Your task to perform on an android device: uninstall "Yahoo Mail" Image 0: 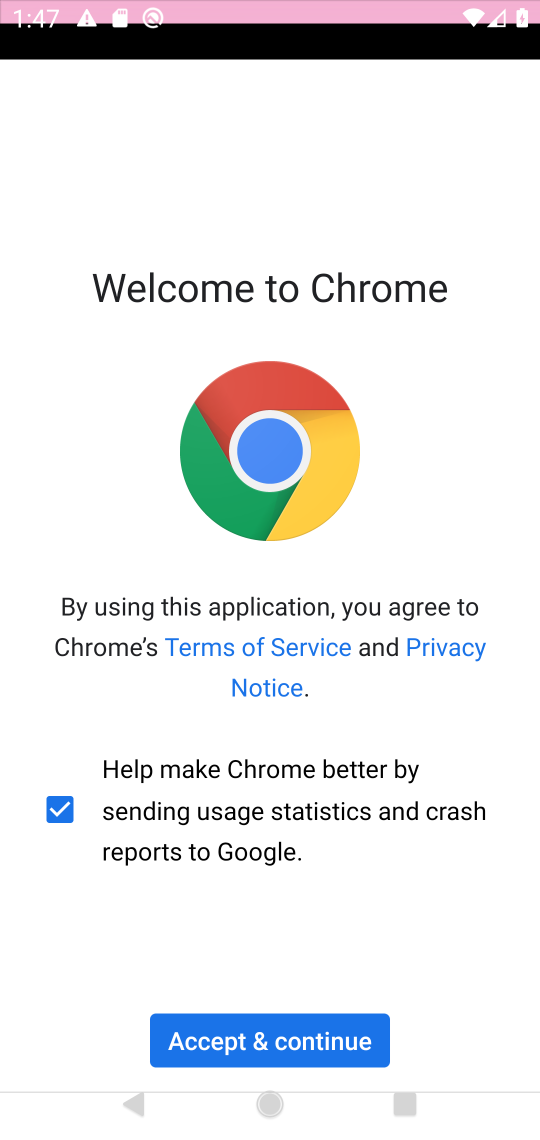
Step 0: press back button
Your task to perform on an android device: uninstall "Yahoo Mail" Image 1: 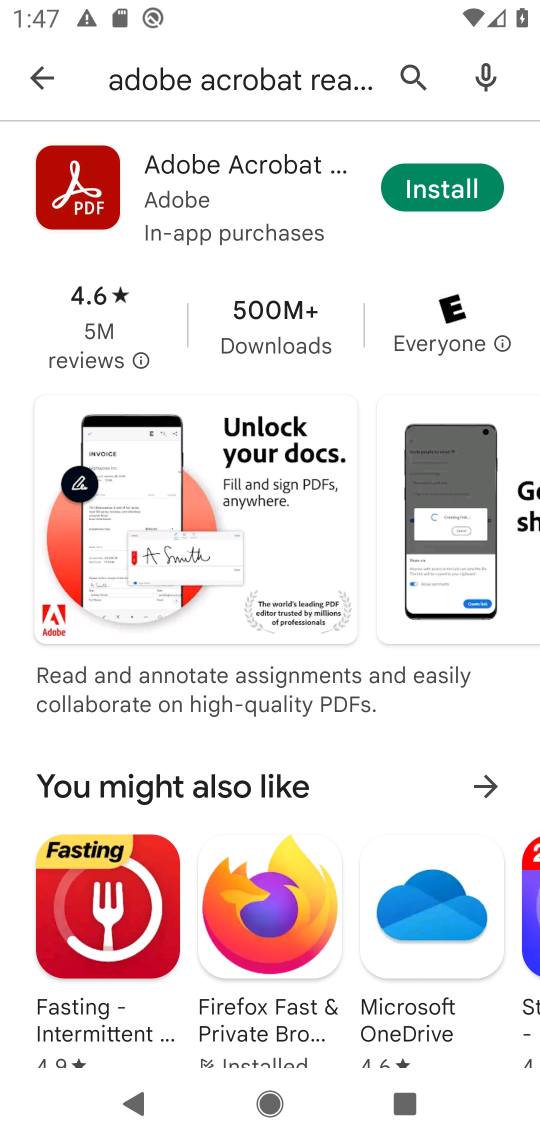
Step 1: press back button
Your task to perform on an android device: uninstall "Yahoo Mail" Image 2: 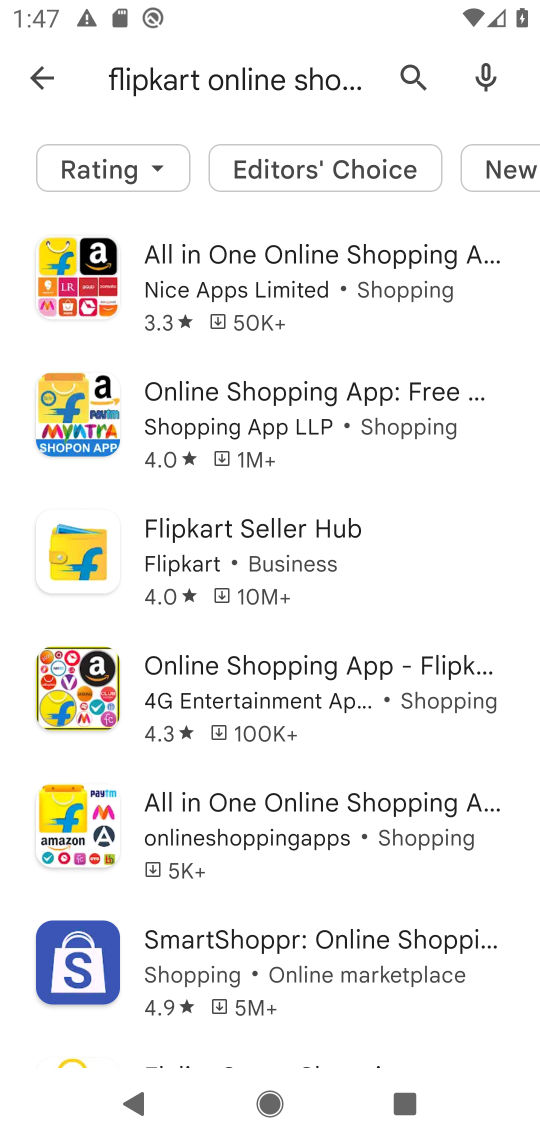
Step 2: click (381, 79)
Your task to perform on an android device: uninstall "Yahoo Mail" Image 3: 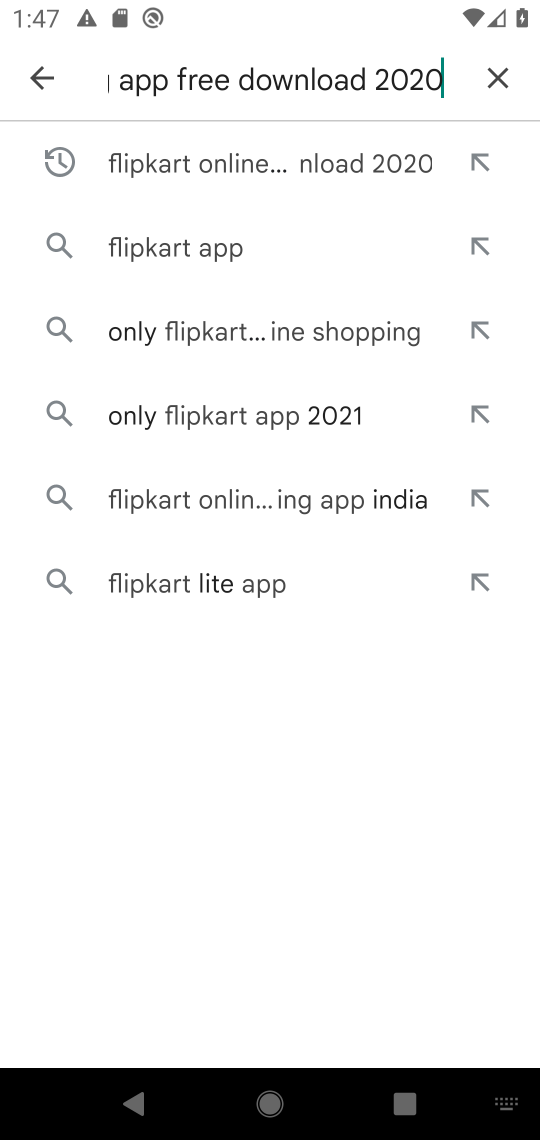
Step 3: click (495, 72)
Your task to perform on an android device: uninstall "Yahoo Mail" Image 4: 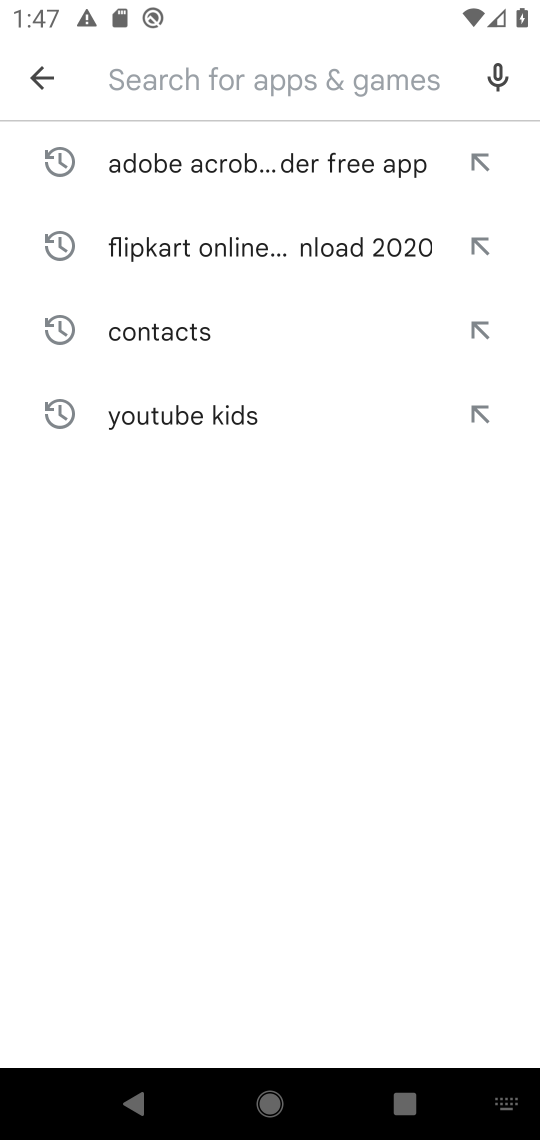
Step 4: click (272, 79)
Your task to perform on an android device: uninstall "Yahoo Mail" Image 5: 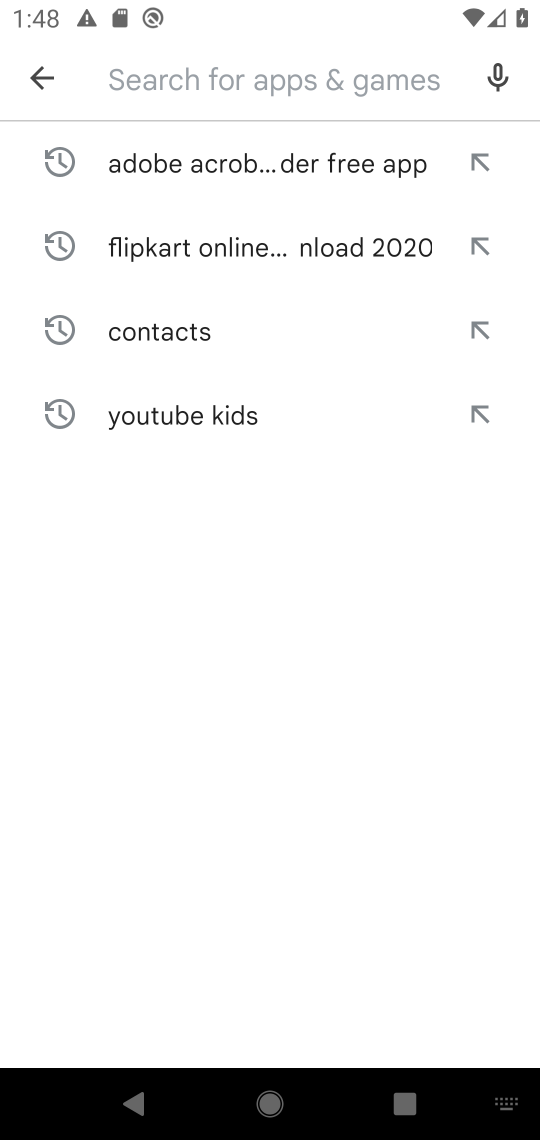
Step 5: type "yahoo mail"
Your task to perform on an android device: uninstall "Yahoo Mail" Image 6: 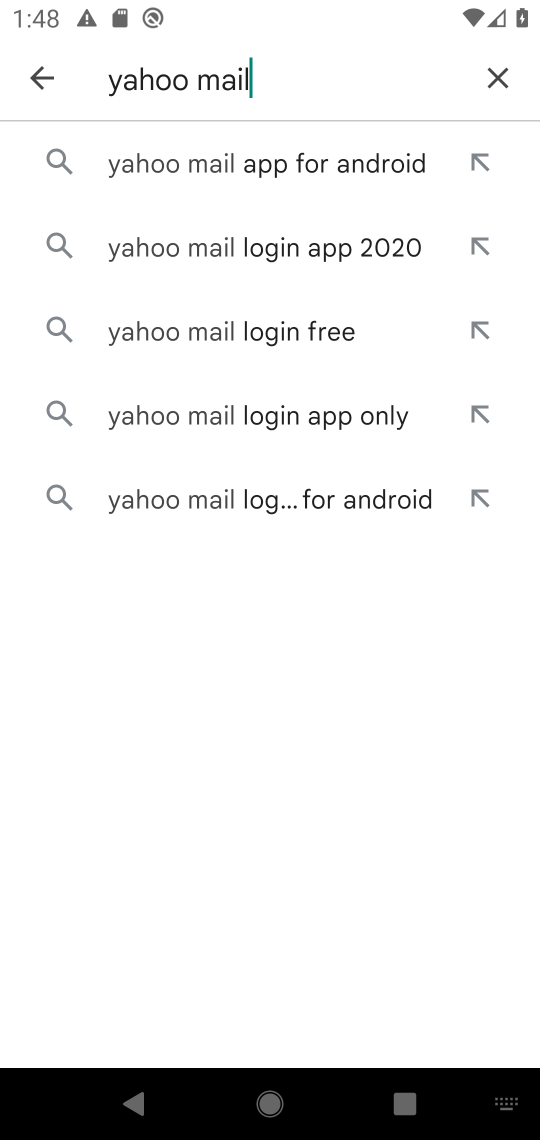
Step 6: click (274, 178)
Your task to perform on an android device: uninstall "Yahoo Mail" Image 7: 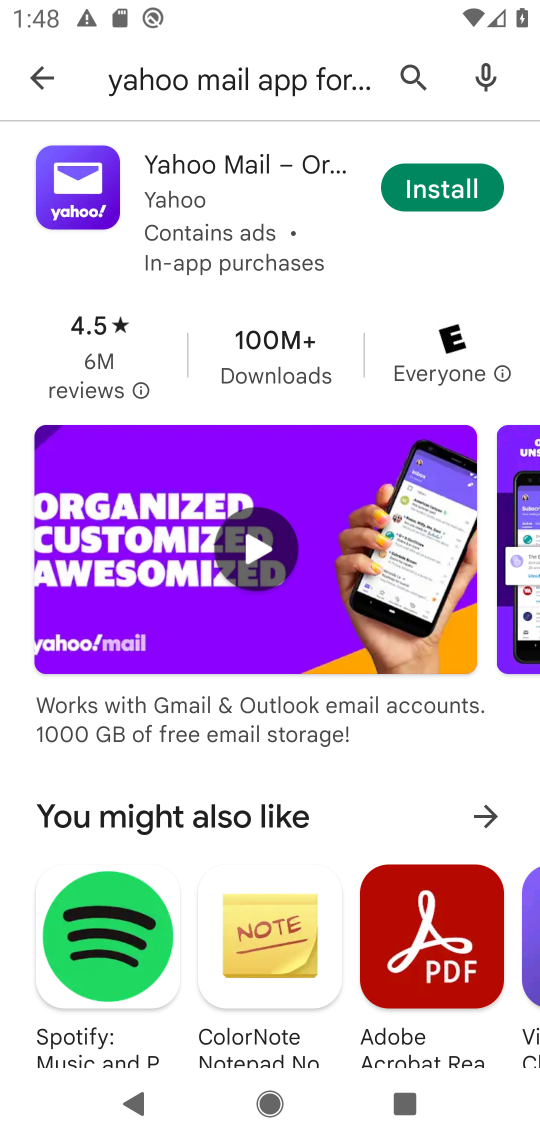
Step 7: task complete